Your task to perform on an android device: Open maps Image 0: 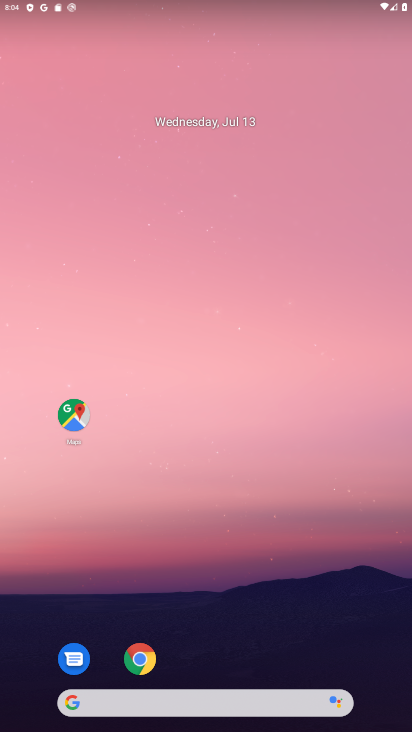
Step 0: click (81, 423)
Your task to perform on an android device: Open maps Image 1: 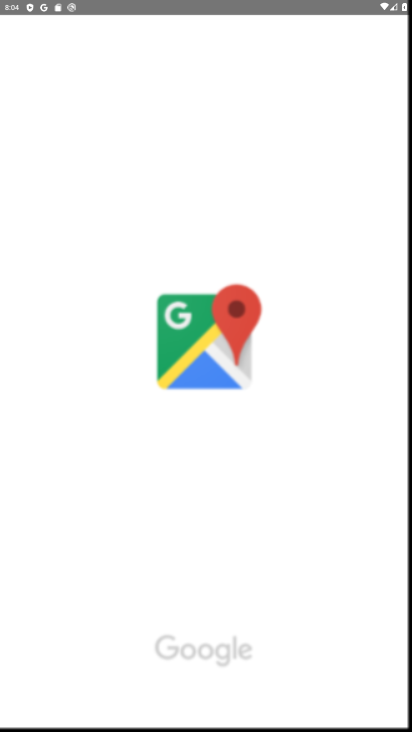
Step 1: task complete